Your task to perform on an android device: open chrome privacy settings Image 0: 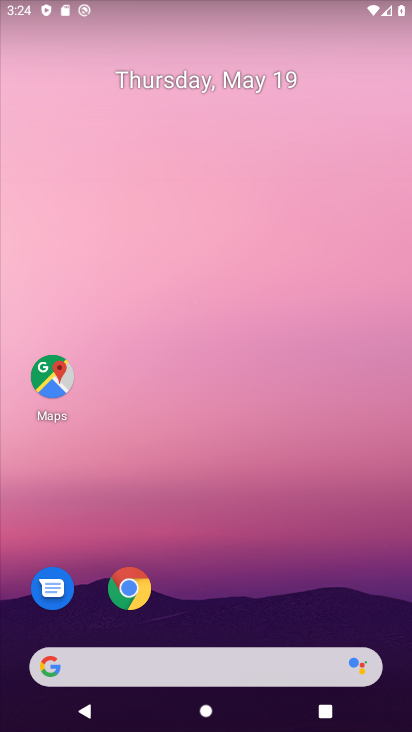
Step 0: click (133, 589)
Your task to perform on an android device: open chrome privacy settings Image 1: 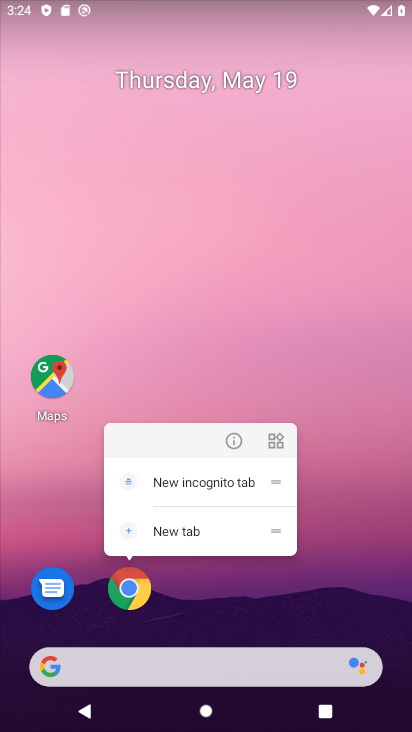
Step 1: click (131, 588)
Your task to perform on an android device: open chrome privacy settings Image 2: 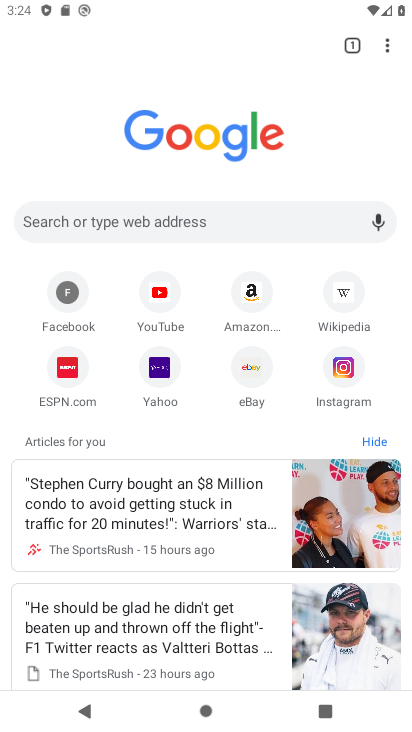
Step 2: click (387, 41)
Your task to perform on an android device: open chrome privacy settings Image 3: 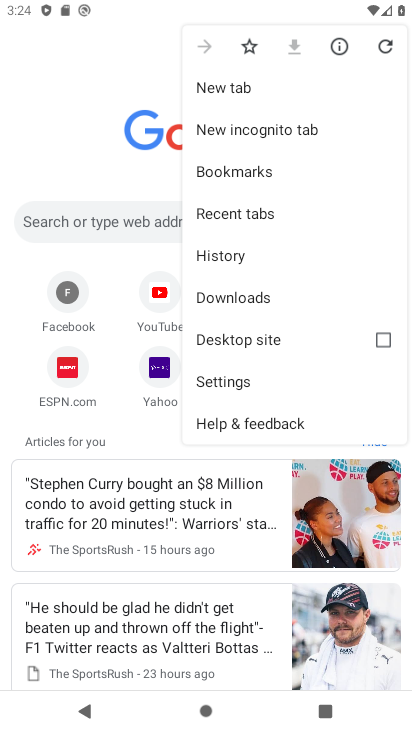
Step 3: click (213, 379)
Your task to perform on an android device: open chrome privacy settings Image 4: 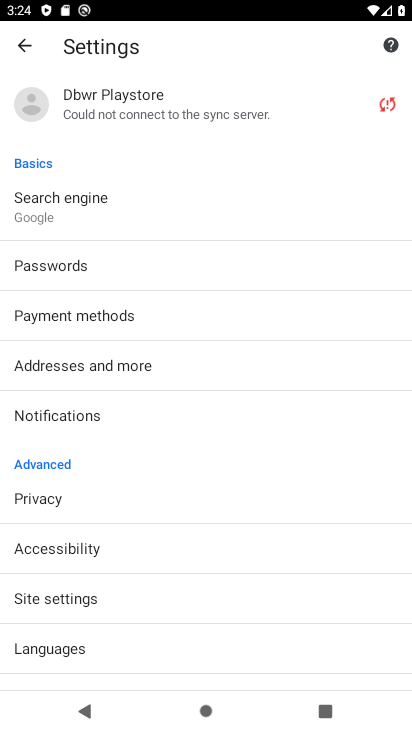
Step 4: drag from (96, 551) to (101, 410)
Your task to perform on an android device: open chrome privacy settings Image 5: 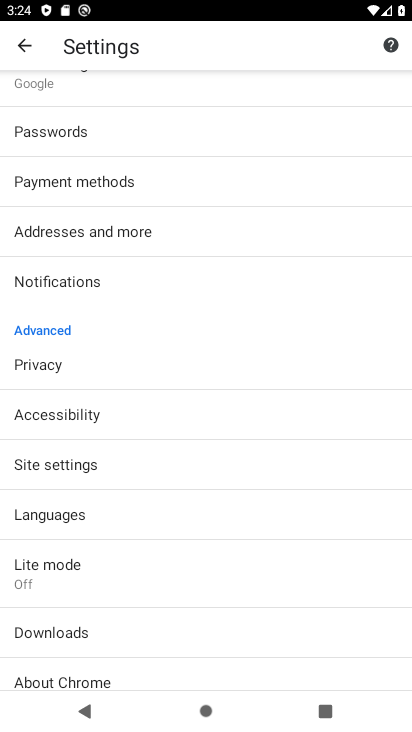
Step 5: click (43, 366)
Your task to perform on an android device: open chrome privacy settings Image 6: 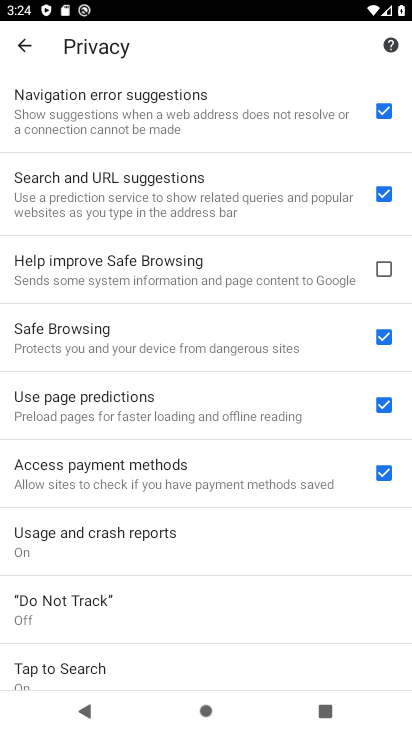
Step 6: task complete